Your task to perform on an android device: Open internet settings Image 0: 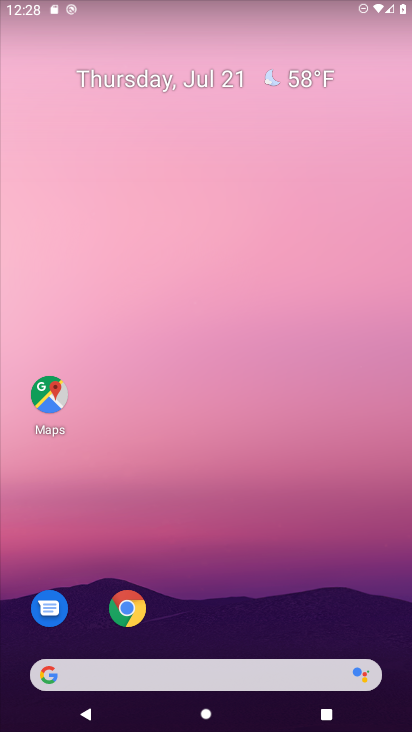
Step 0: press home button
Your task to perform on an android device: Open internet settings Image 1: 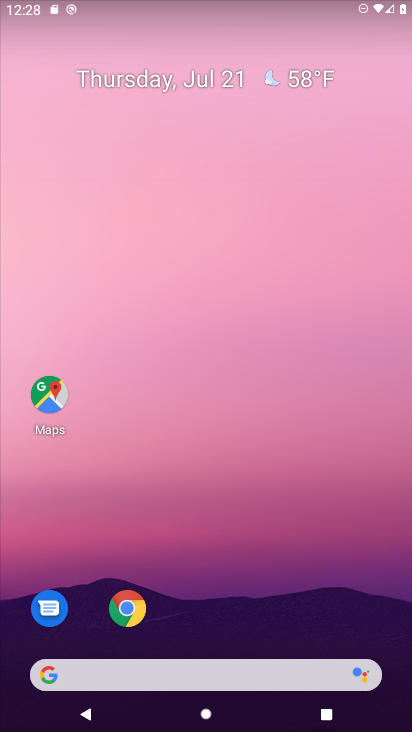
Step 1: drag from (204, 644) to (261, 1)
Your task to perform on an android device: Open internet settings Image 2: 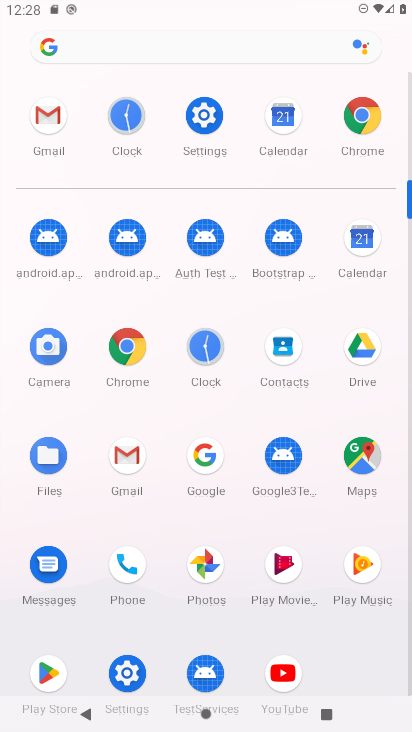
Step 2: click (203, 122)
Your task to perform on an android device: Open internet settings Image 3: 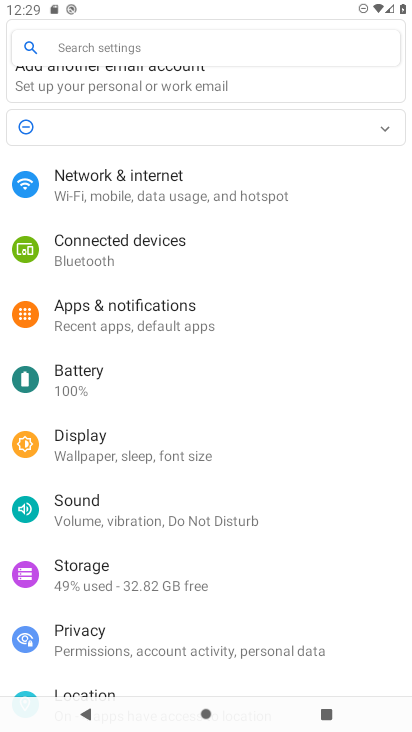
Step 3: click (120, 192)
Your task to perform on an android device: Open internet settings Image 4: 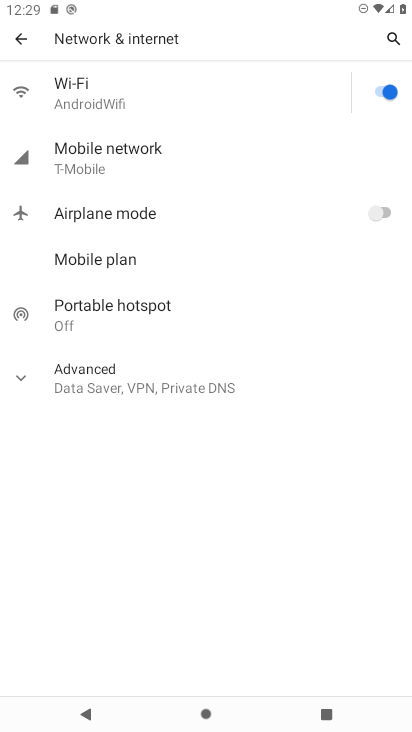
Step 4: task complete